Your task to perform on an android device: clear history in the chrome app Image 0: 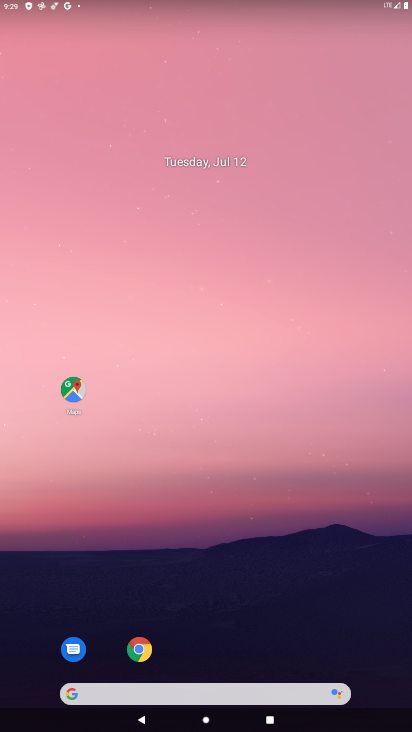
Step 0: click (142, 651)
Your task to perform on an android device: clear history in the chrome app Image 1: 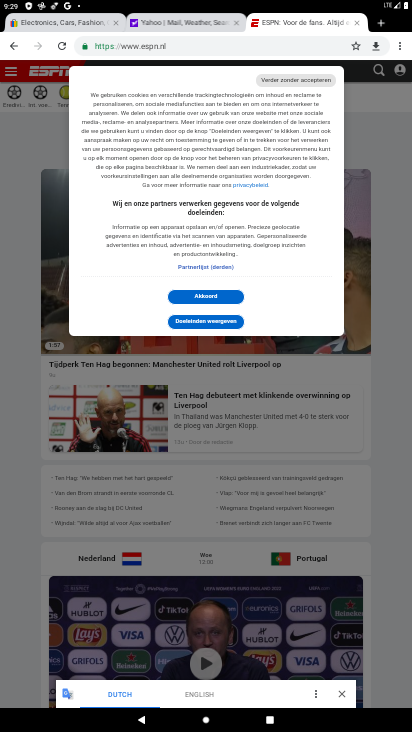
Step 1: click (233, 294)
Your task to perform on an android device: clear history in the chrome app Image 2: 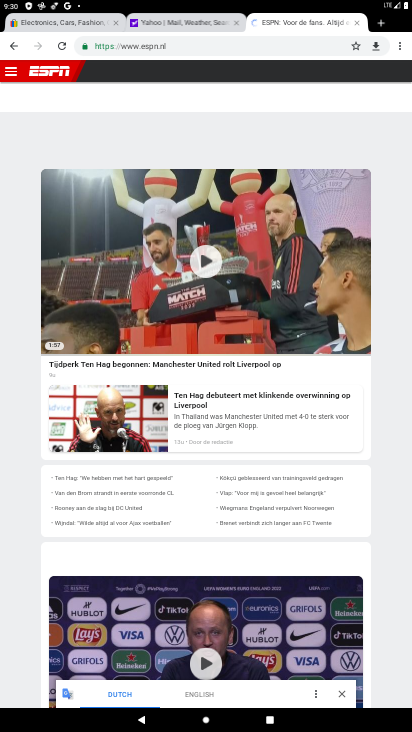
Step 2: click (394, 49)
Your task to perform on an android device: clear history in the chrome app Image 3: 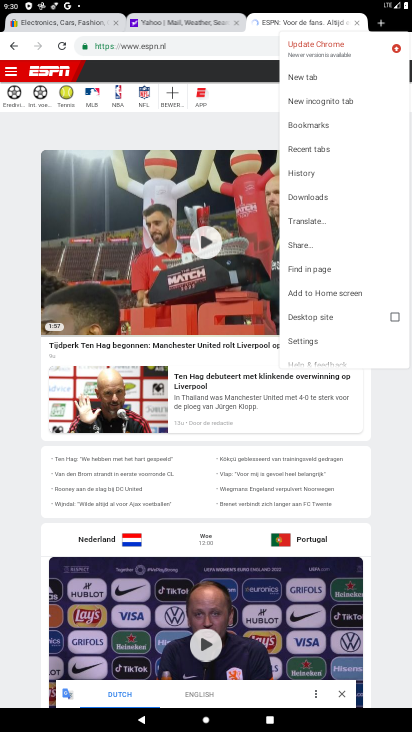
Step 3: click (336, 174)
Your task to perform on an android device: clear history in the chrome app Image 4: 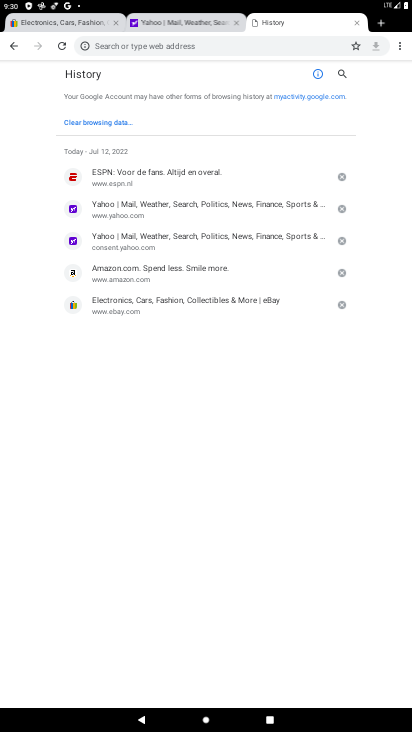
Step 4: click (129, 127)
Your task to perform on an android device: clear history in the chrome app Image 5: 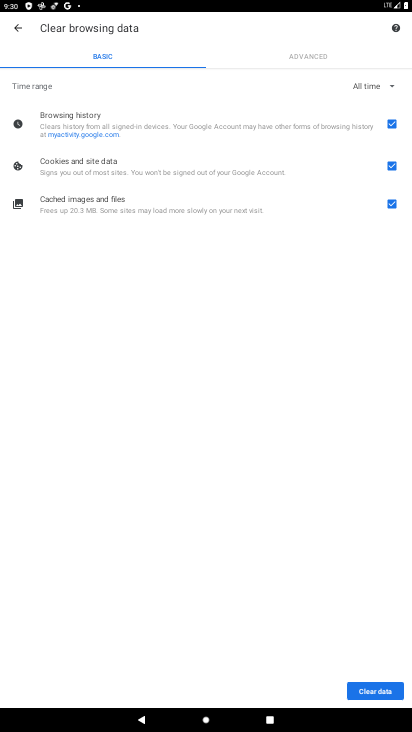
Step 5: click (386, 684)
Your task to perform on an android device: clear history in the chrome app Image 6: 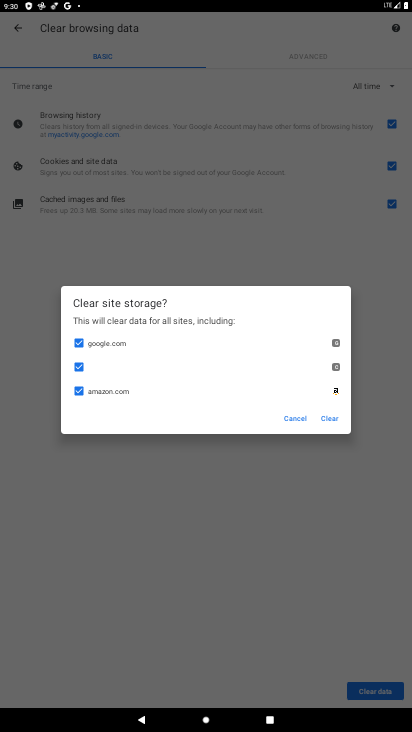
Step 6: click (329, 420)
Your task to perform on an android device: clear history in the chrome app Image 7: 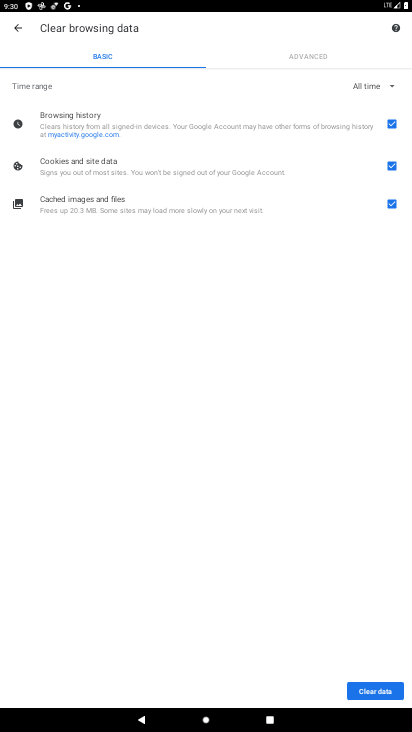
Step 7: task complete